Your task to perform on an android device: Go to CNN.com Image 0: 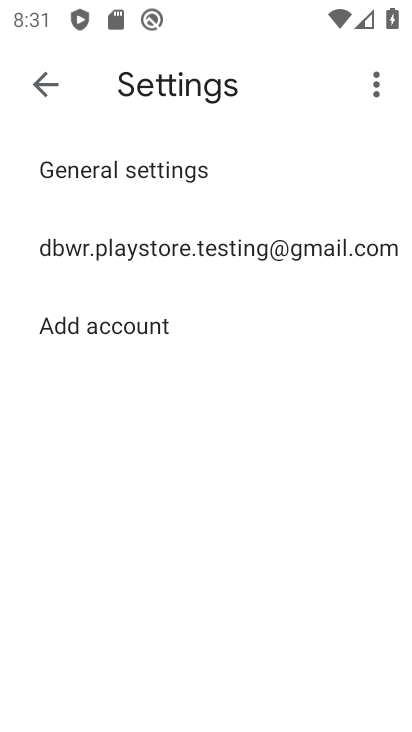
Step 0: press home button
Your task to perform on an android device: Go to CNN.com Image 1: 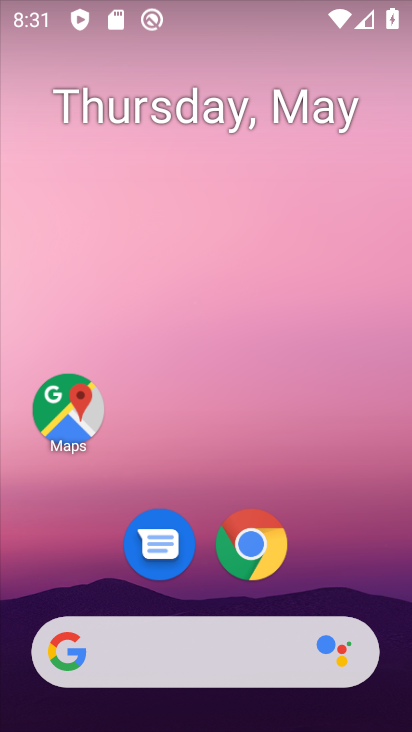
Step 1: click (243, 546)
Your task to perform on an android device: Go to CNN.com Image 2: 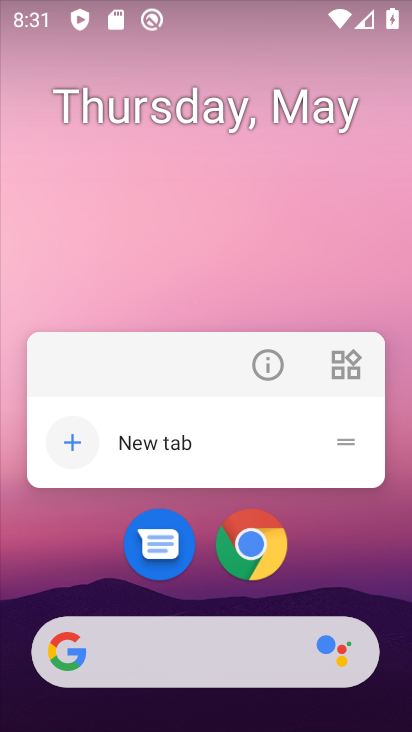
Step 2: click (250, 536)
Your task to perform on an android device: Go to CNN.com Image 3: 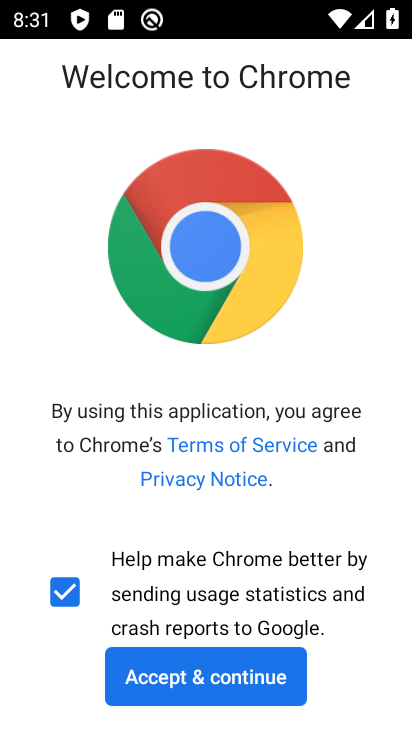
Step 3: click (218, 684)
Your task to perform on an android device: Go to CNN.com Image 4: 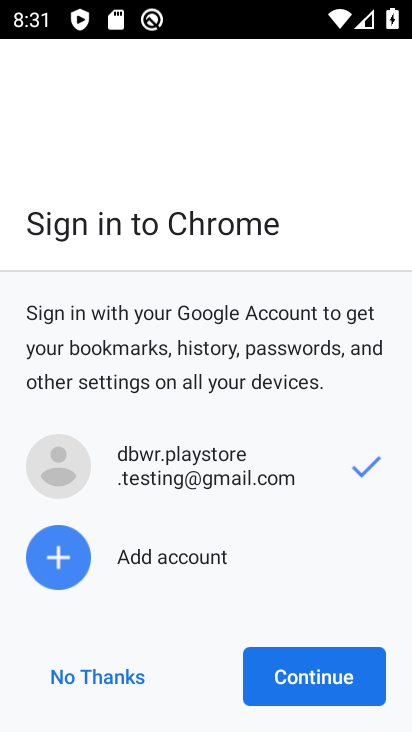
Step 4: click (278, 693)
Your task to perform on an android device: Go to CNN.com Image 5: 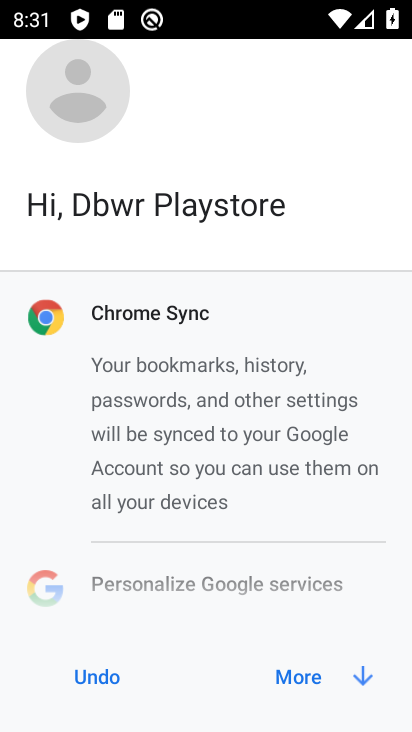
Step 5: click (319, 678)
Your task to perform on an android device: Go to CNN.com Image 6: 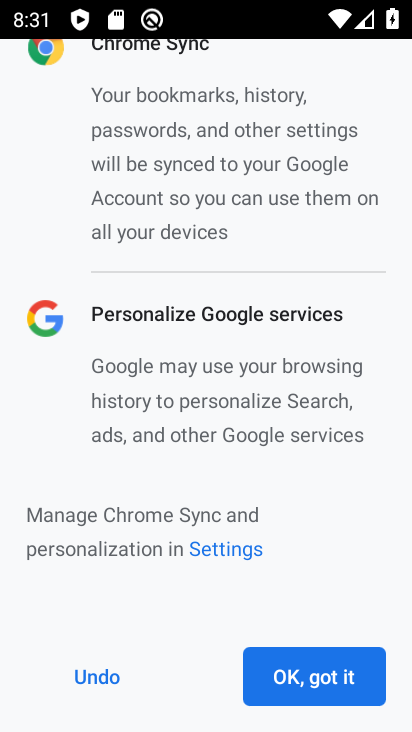
Step 6: click (301, 681)
Your task to perform on an android device: Go to CNN.com Image 7: 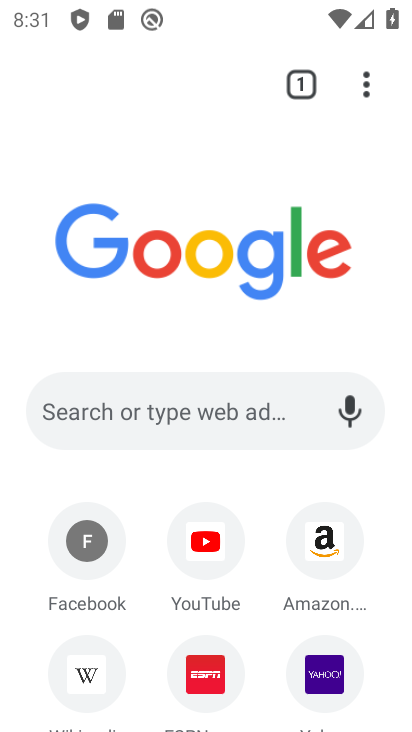
Step 7: click (175, 415)
Your task to perform on an android device: Go to CNN.com Image 8: 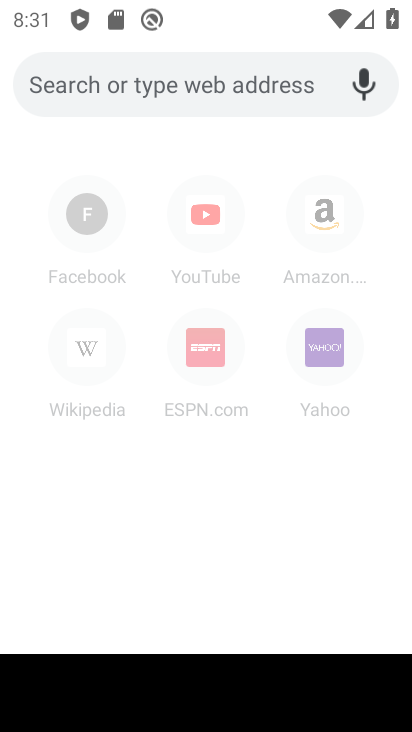
Step 8: type "CNN.com"
Your task to perform on an android device: Go to CNN.com Image 9: 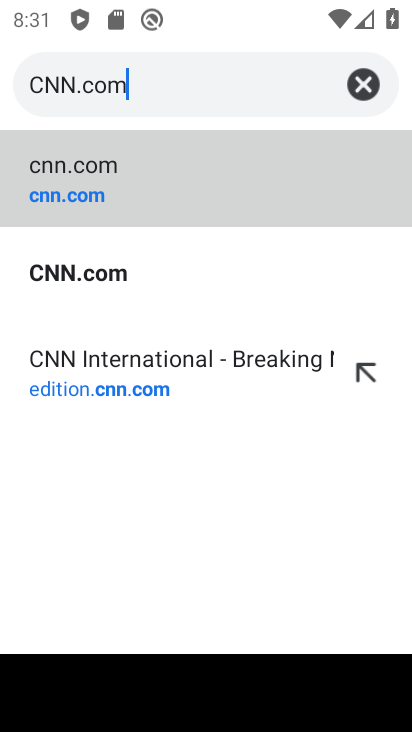
Step 9: click (98, 185)
Your task to perform on an android device: Go to CNN.com Image 10: 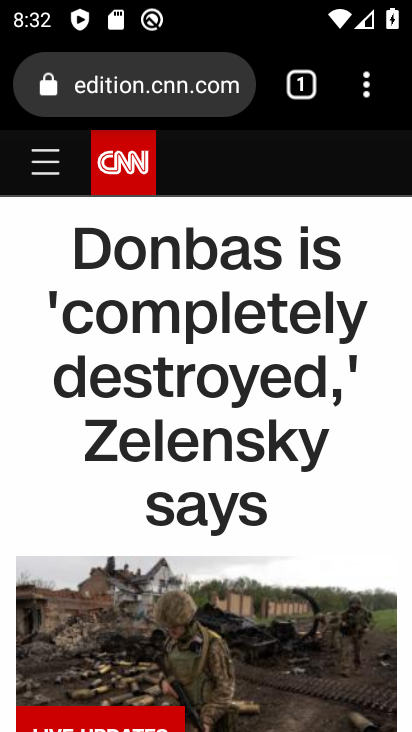
Step 10: task complete